Your task to perform on an android device: set the timer Image 0: 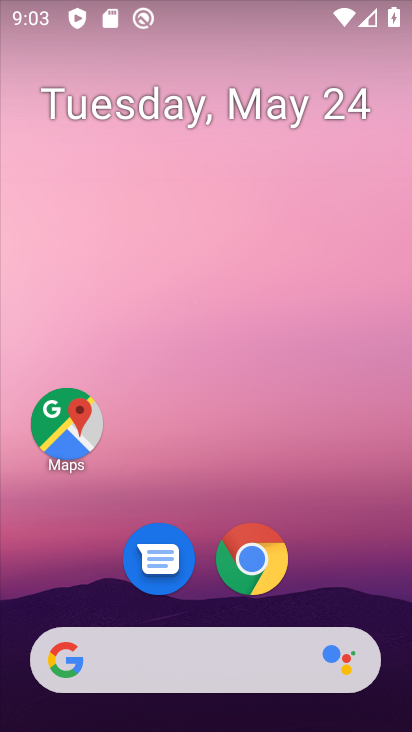
Step 0: drag from (369, 547) to (332, 14)
Your task to perform on an android device: set the timer Image 1: 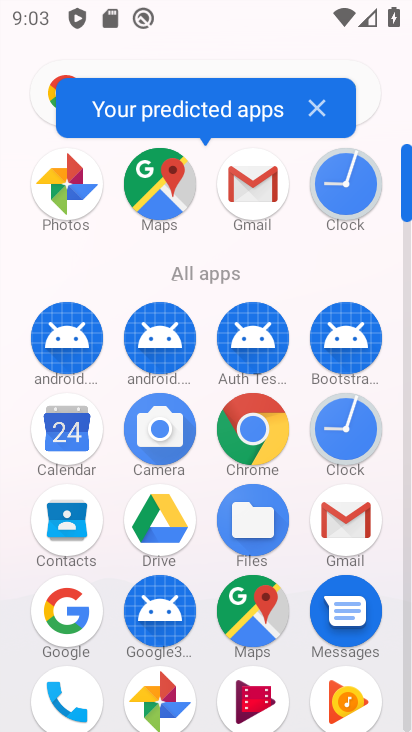
Step 1: click (324, 112)
Your task to perform on an android device: set the timer Image 2: 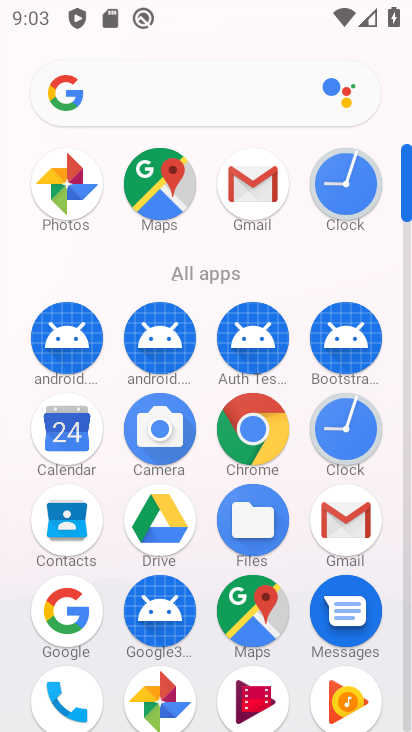
Step 2: click (410, 638)
Your task to perform on an android device: set the timer Image 3: 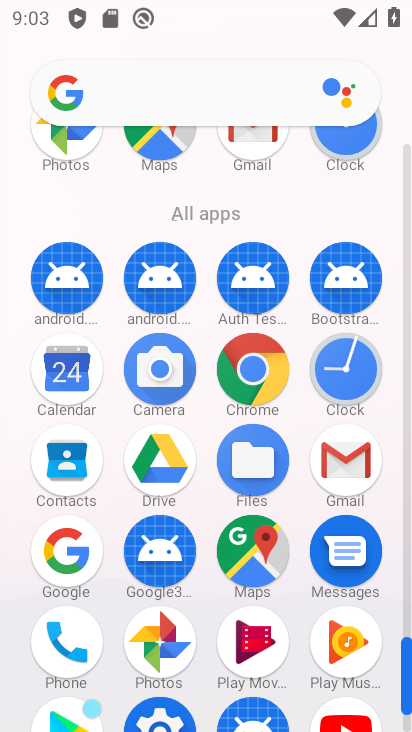
Step 3: click (406, 718)
Your task to perform on an android device: set the timer Image 4: 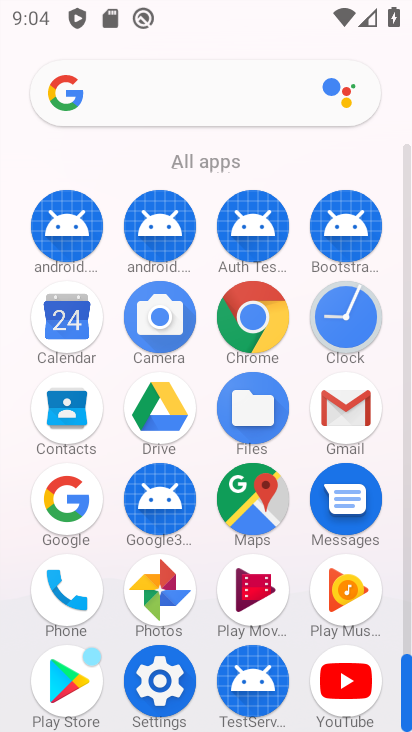
Step 4: click (358, 345)
Your task to perform on an android device: set the timer Image 5: 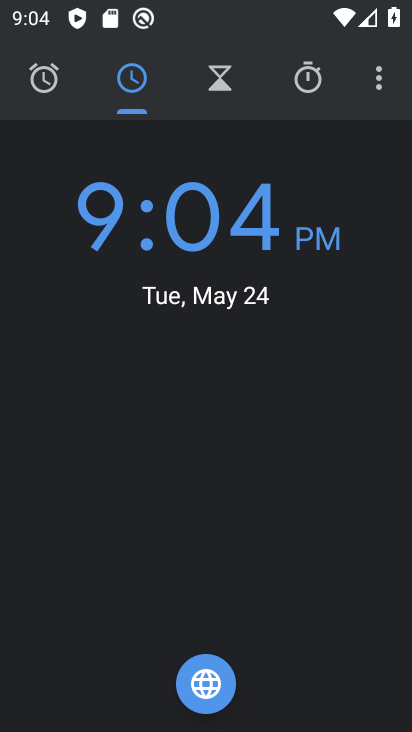
Step 5: click (222, 81)
Your task to perform on an android device: set the timer Image 6: 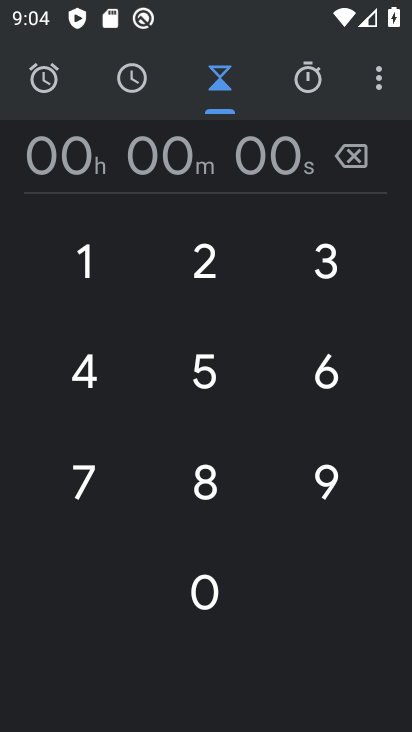
Step 6: task complete